Your task to perform on an android device: Open sound settings Image 0: 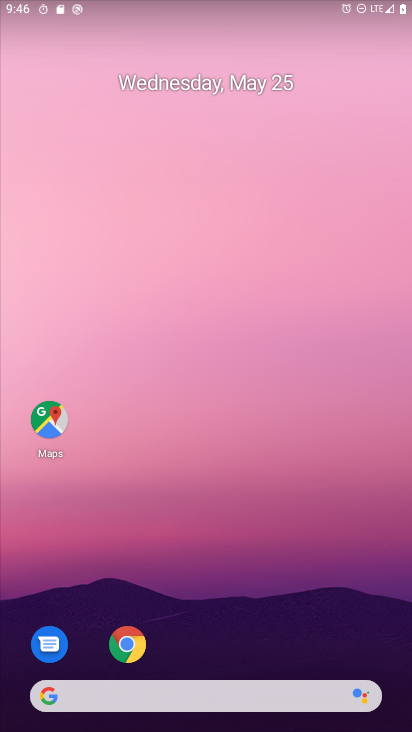
Step 0: drag from (344, 631) to (328, 25)
Your task to perform on an android device: Open sound settings Image 1: 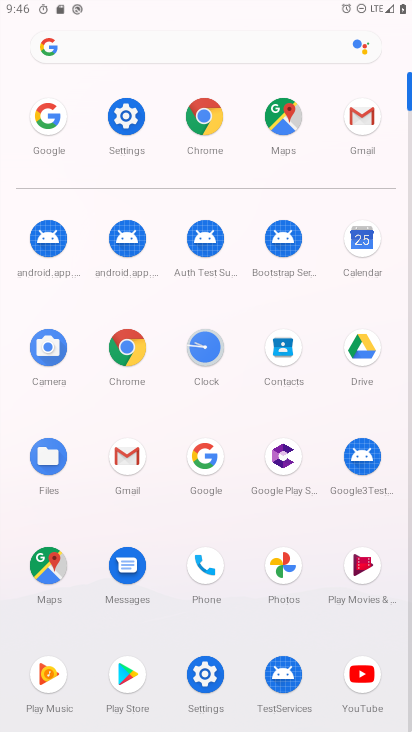
Step 1: click (127, 130)
Your task to perform on an android device: Open sound settings Image 2: 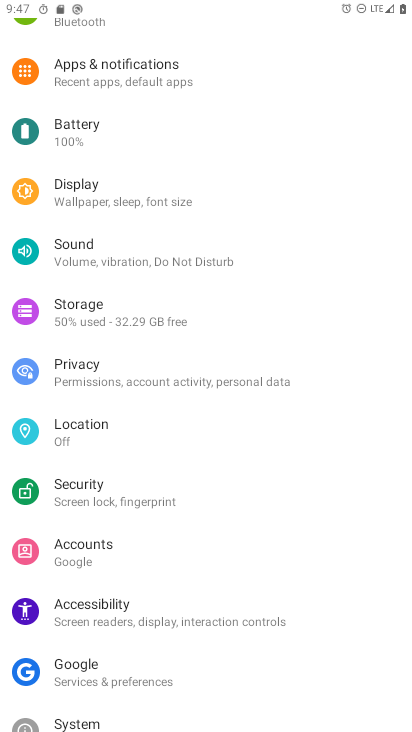
Step 2: click (169, 248)
Your task to perform on an android device: Open sound settings Image 3: 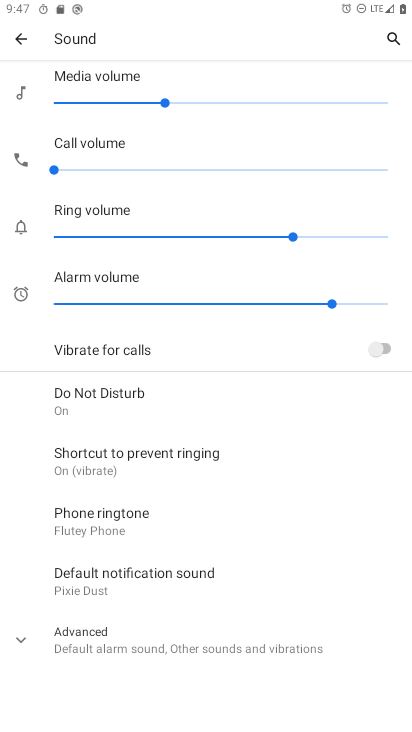
Step 3: task complete